Your task to perform on an android device: Is it going to rain tomorrow? Image 0: 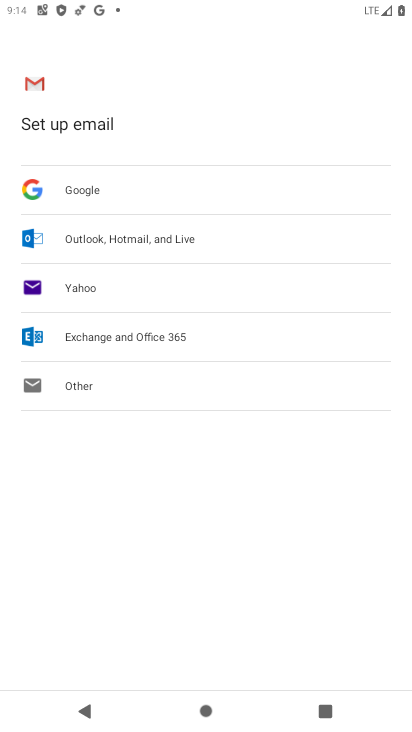
Step 0: drag from (208, 668) to (164, 51)
Your task to perform on an android device: Is it going to rain tomorrow? Image 1: 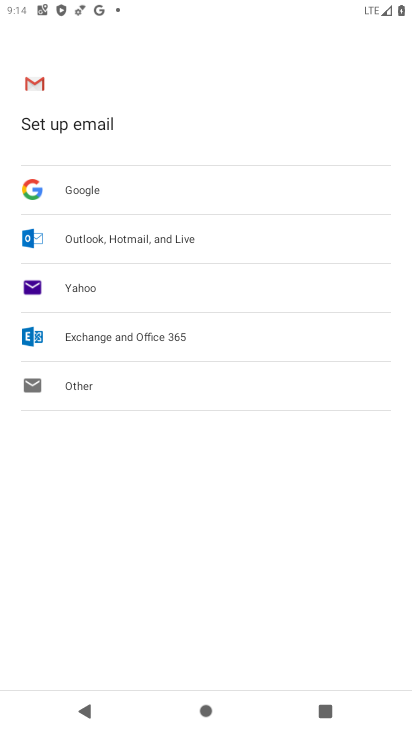
Step 1: press home button
Your task to perform on an android device: Is it going to rain tomorrow? Image 2: 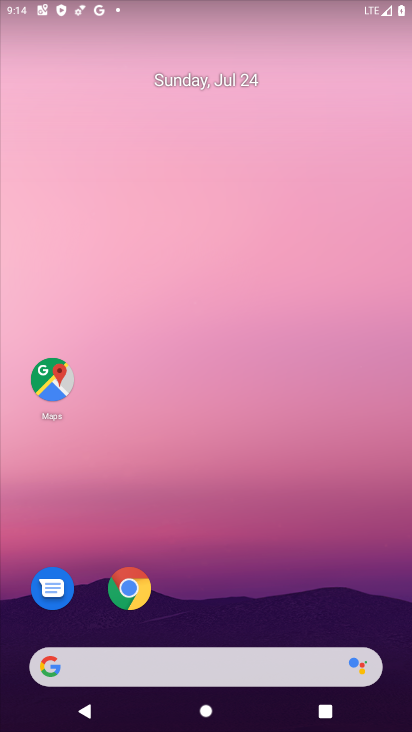
Step 2: drag from (197, 671) to (183, 61)
Your task to perform on an android device: Is it going to rain tomorrow? Image 3: 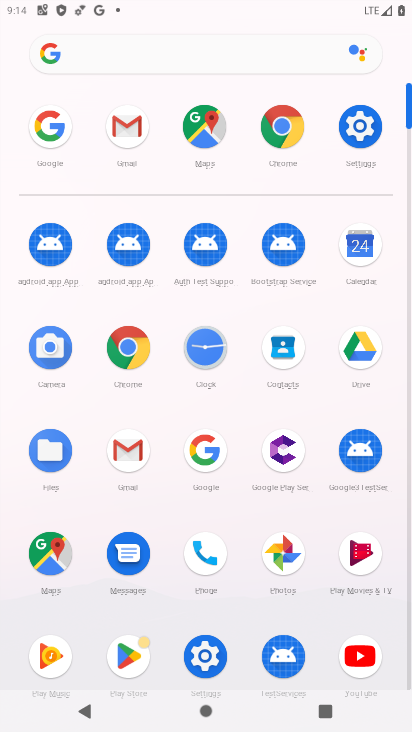
Step 3: click (280, 148)
Your task to perform on an android device: Is it going to rain tomorrow? Image 4: 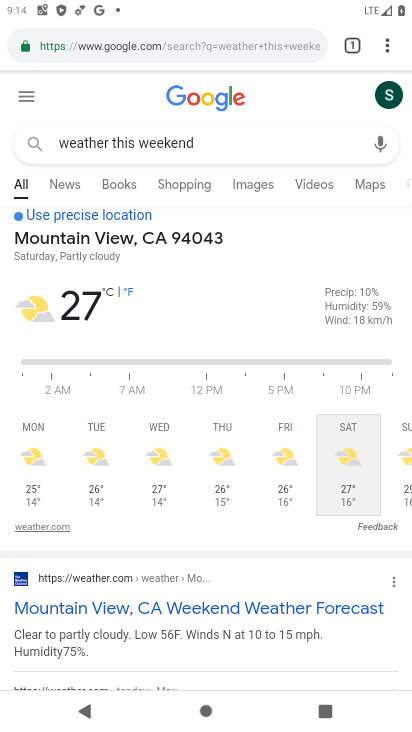
Step 4: click (270, 138)
Your task to perform on an android device: Is it going to rain tomorrow? Image 5: 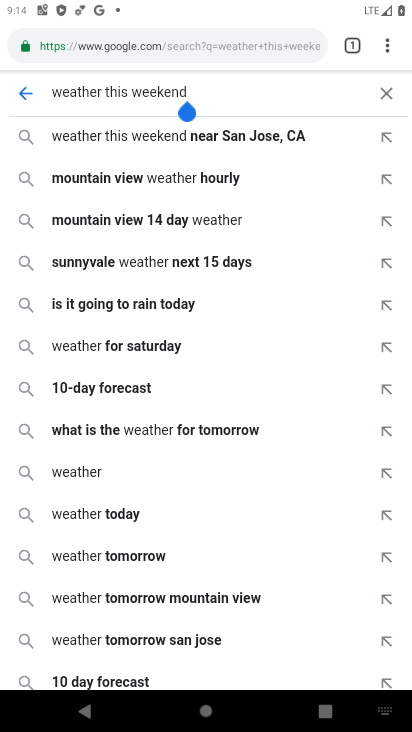
Step 5: click (389, 82)
Your task to perform on an android device: Is it going to rain tomorrow? Image 6: 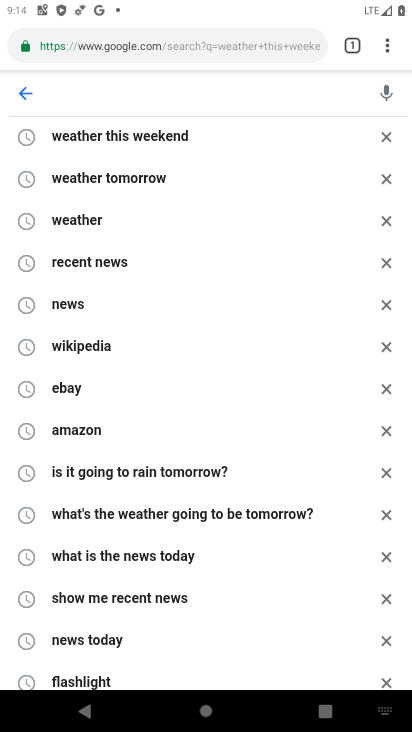
Step 6: type "rain tomorrow"
Your task to perform on an android device: Is it going to rain tomorrow? Image 7: 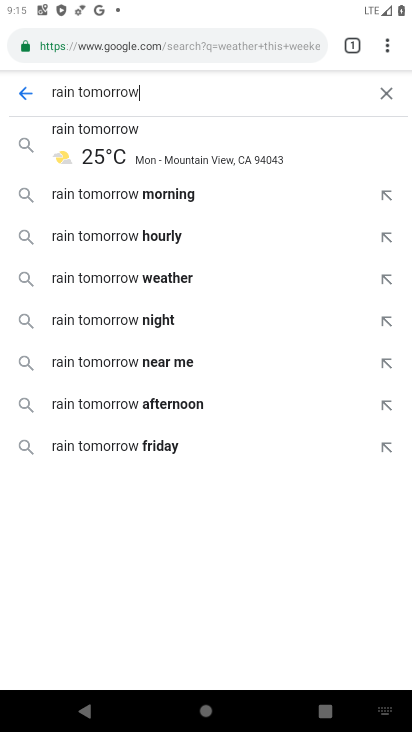
Step 7: click (138, 134)
Your task to perform on an android device: Is it going to rain tomorrow? Image 8: 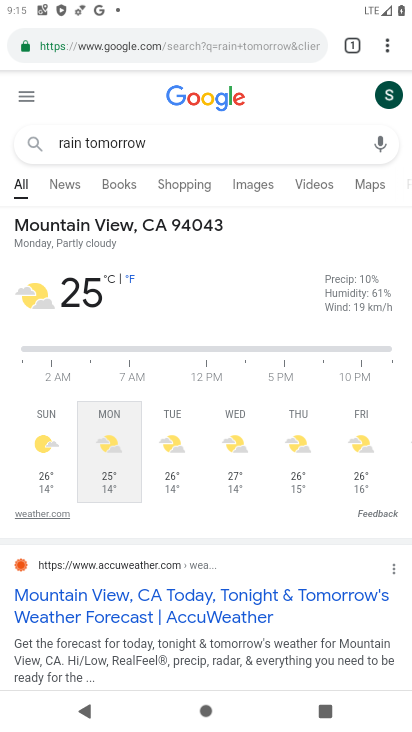
Step 8: task complete